Your task to perform on an android device: Open Wikipedia Image 0: 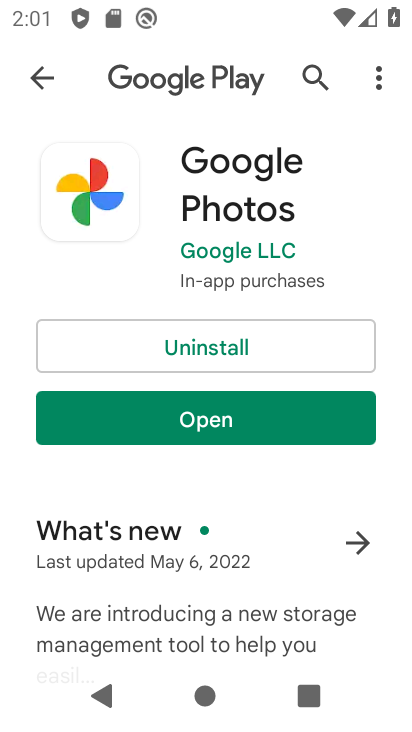
Step 0: press home button
Your task to perform on an android device: Open Wikipedia Image 1: 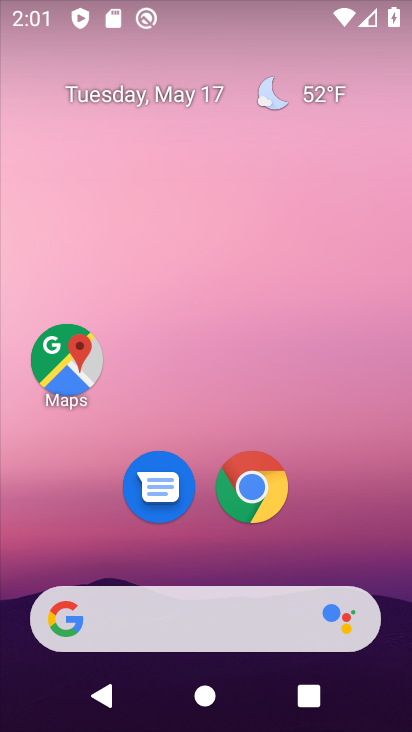
Step 1: click (249, 493)
Your task to perform on an android device: Open Wikipedia Image 2: 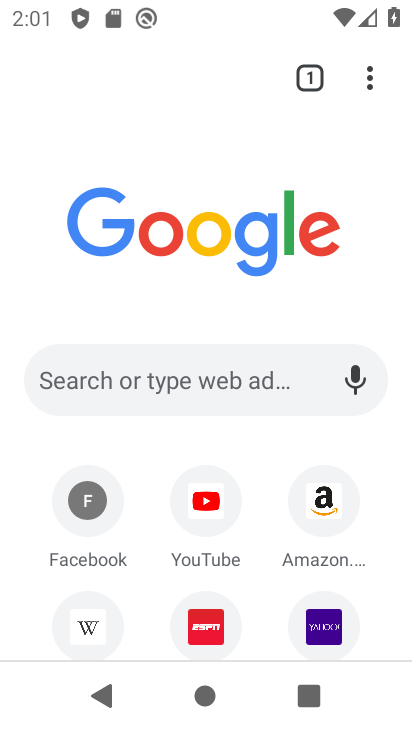
Step 2: click (244, 385)
Your task to perform on an android device: Open Wikipedia Image 3: 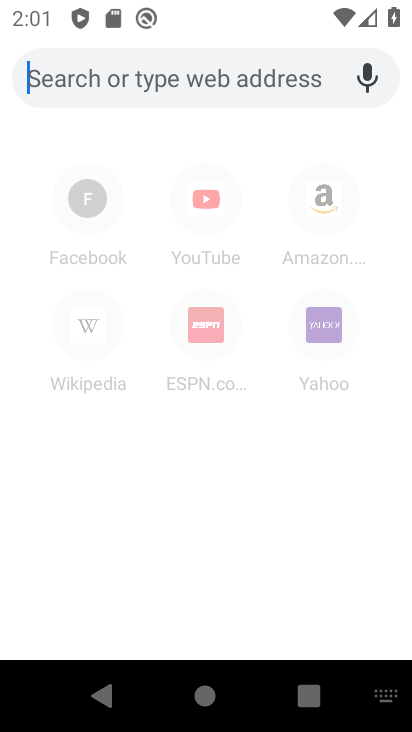
Step 3: type "Wikipedia"
Your task to perform on an android device: Open Wikipedia Image 4: 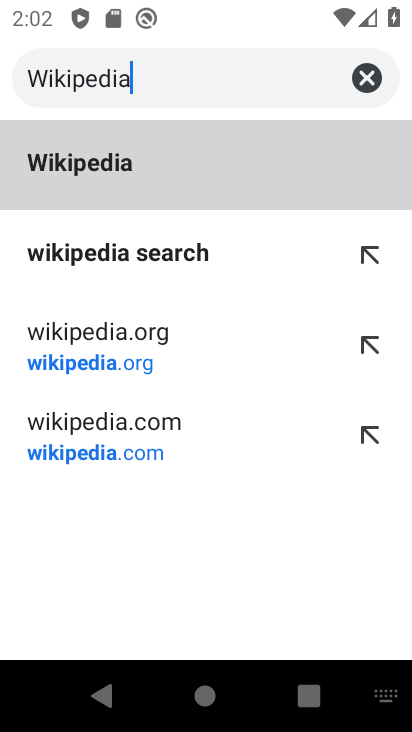
Step 4: click (95, 182)
Your task to perform on an android device: Open Wikipedia Image 5: 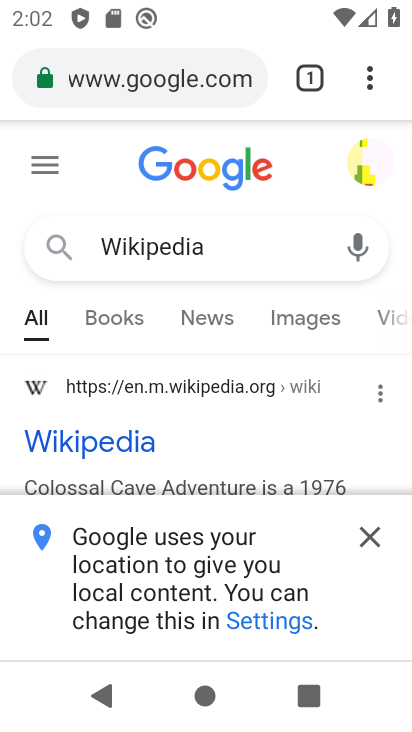
Step 5: task complete